Your task to perform on an android device: turn on translation in the chrome app Image 0: 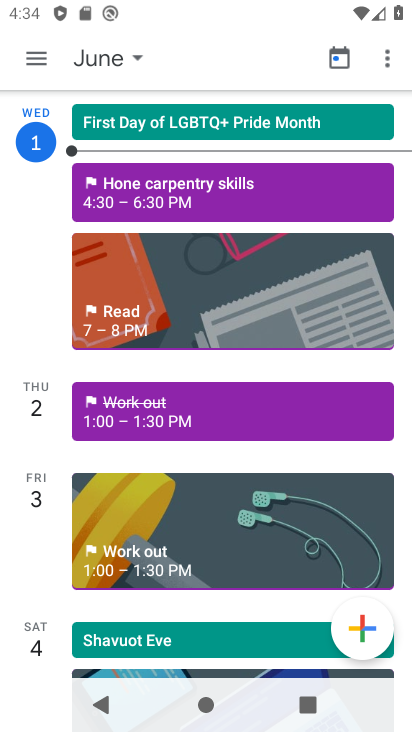
Step 0: press back button
Your task to perform on an android device: turn on translation in the chrome app Image 1: 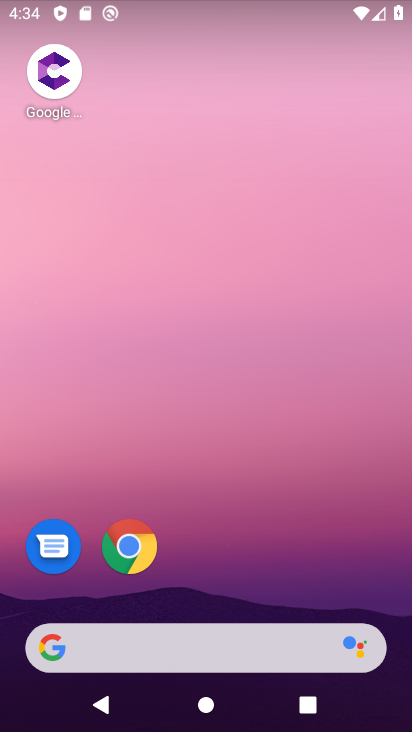
Step 1: drag from (276, 529) to (199, 30)
Your task to perform on an android device: turn on translation in the chrome app Image 2: 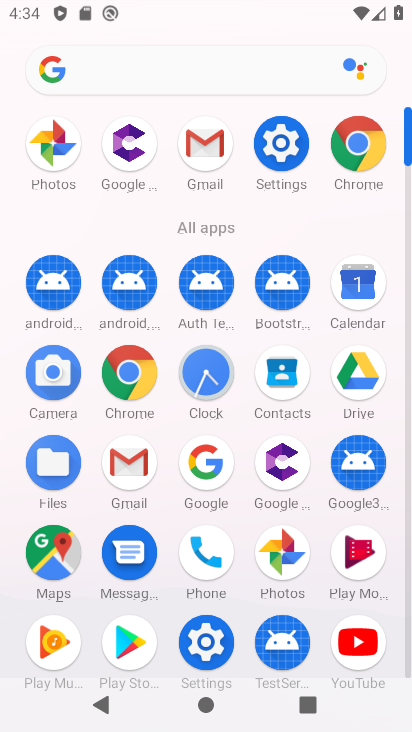
Step 2: drag from (18, 580) to (20, 274)
Your task to perform on an android device: turn on translation in the chrome app Image 3: 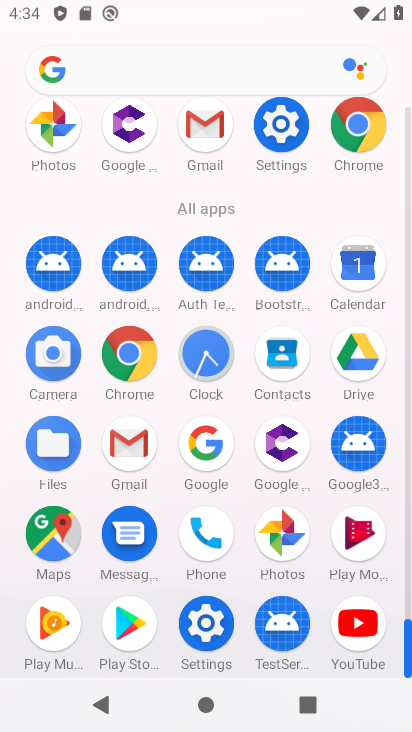
Step 3: click (127, 353)
Your task to perform on an android device: turn on translation in the chrome app Image 4: 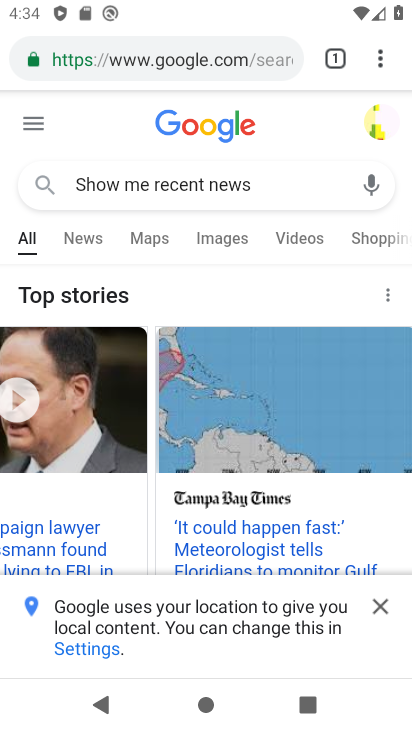
Step 4: drag from (374, 59) to (197, 568)
Your task to perform on an android device: turn on translation in the chrome app Image 5: 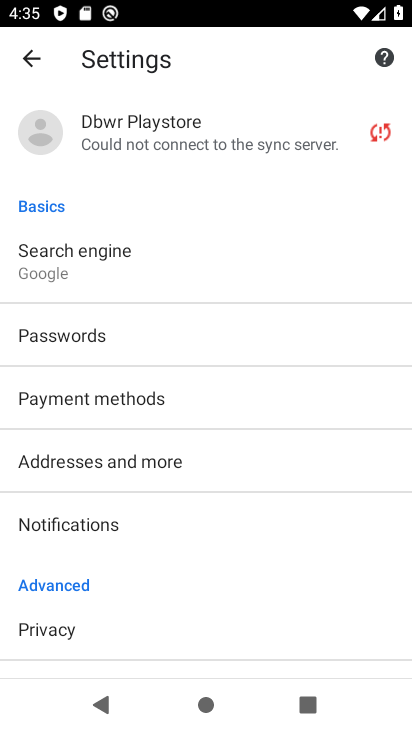
Step 5: drag from (225, 506) to (210, 165)
Your task to perform on an android device: turn on translation in the chrome app Image 6: 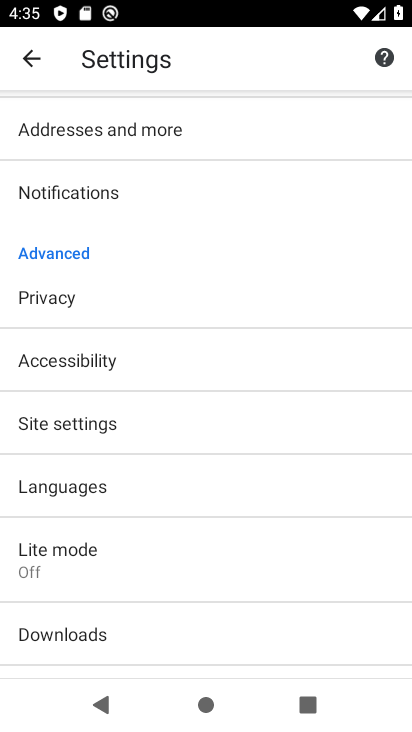
Step 6: drag from (212, 541) to (218, 220)
Your task to perform on an android device: turn on translation in the chrome app Image 7: 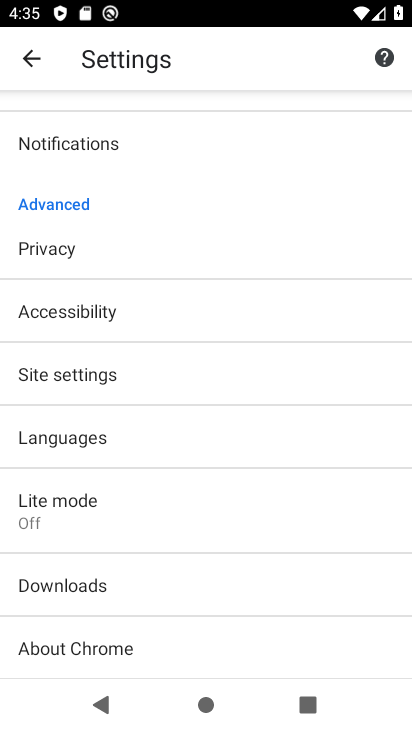
Step 7: drag from (160, 530) to (186, 221)
Your task to perform on an android device: turn on translation in the chrome app Image 8: 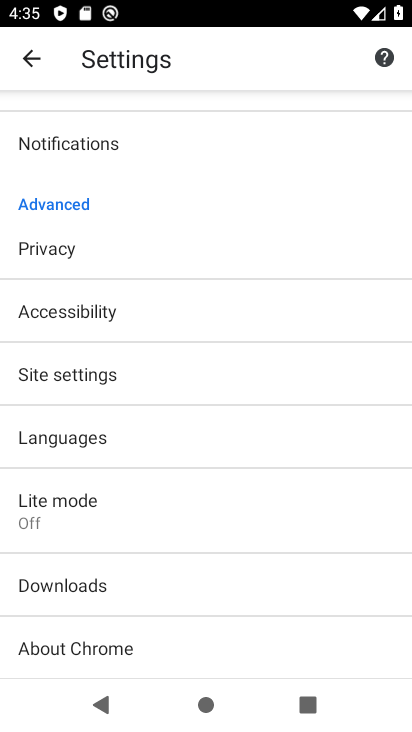
Step 8: click (118, 430)
Your task to perform on an android device: turn on translation in the chrome app Image 9: 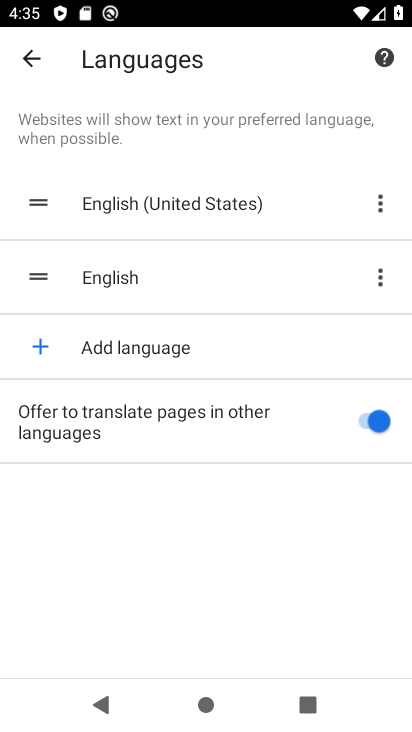
Step 9: task complete